Your task to perform on an android device: turn on airplane mode Image 0: 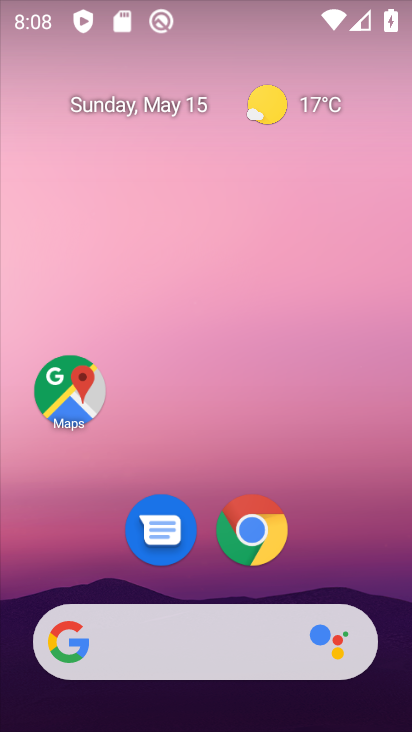
Step 0: drag from (219, 731) to (223, 178)
Your task to perform on an android device: turn on airplane mode Image 1: 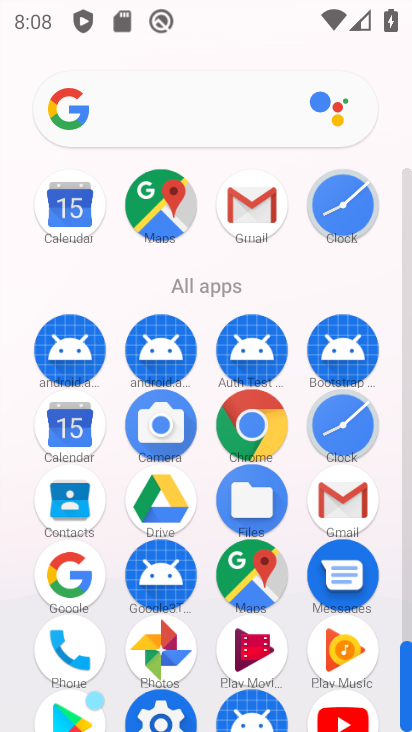
Step 1: click (160, 705)
Your task to perform on an android device: turn on airplane mode Image 2: 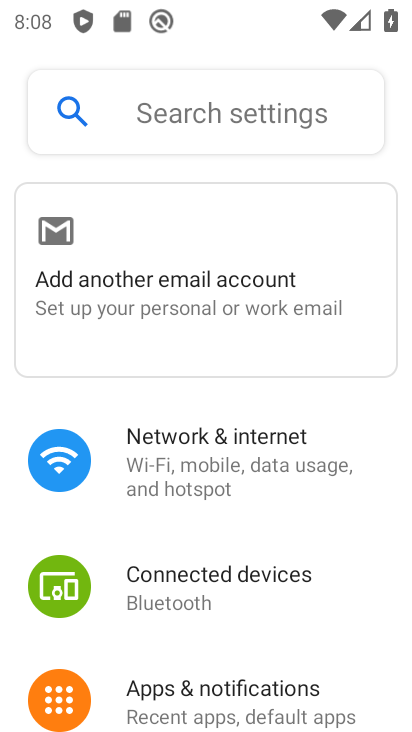
Step 2: click (172, 469)
Your task to perform on an android device: turn on airplane mode Image 3: 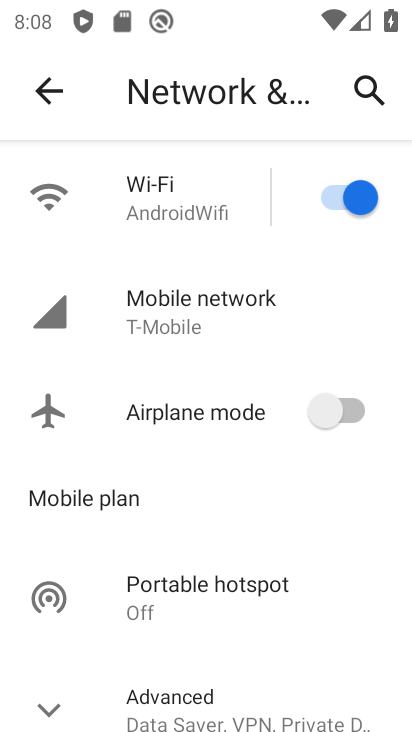
Step 3: click (359, 412)
Your task to perform on an android device: turn on airplane mode Image 4: 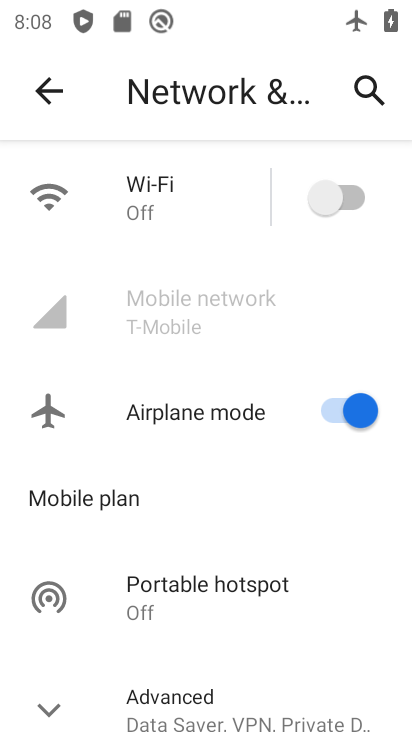
Step 4: task complete